Your task to perform on an android device: remove spam from my inbox in the gmail app Image 0: 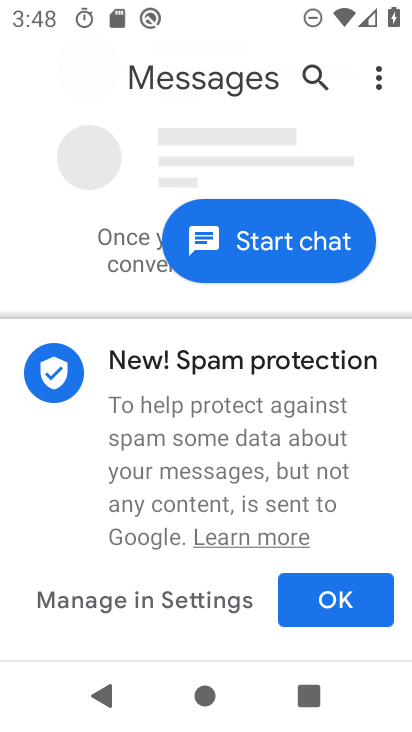
Step 0: press home button
Your task to perform on an android device: remove spam from my inbox in the gmail app Image 1: 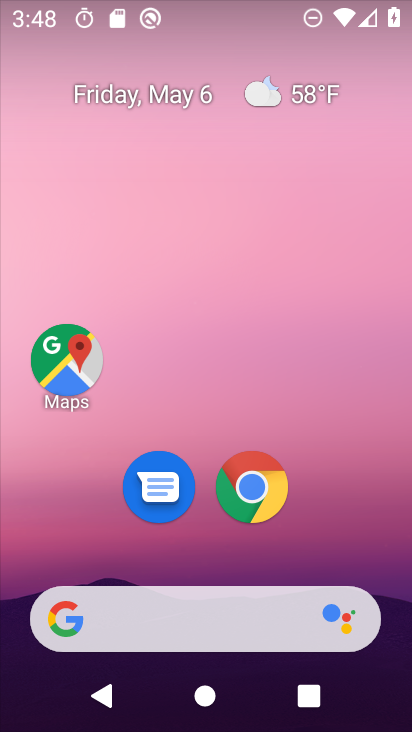
Step 1: drag from (315, 435) to (387, 43)
Your task to perform on an android device: remove spam from my inbox in the gmail app Image 2: 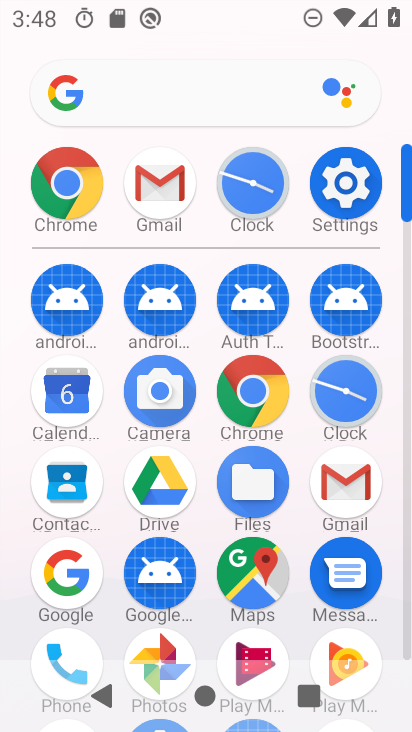
Step 2: click (354, 493)
Your task to perform on an android device: remove spam from my inbox in the gmail app Image 3: 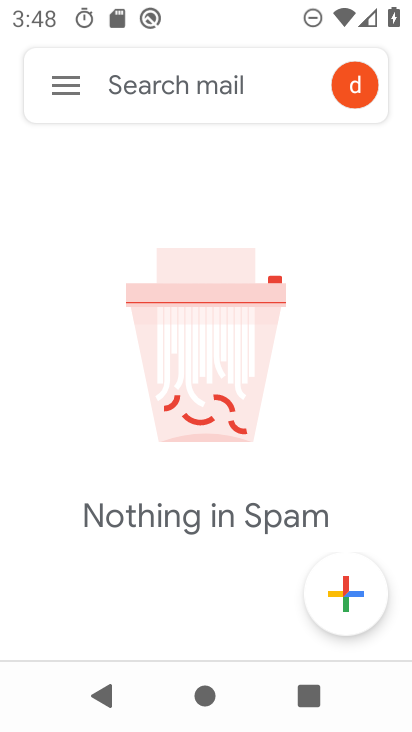
Step 3: click (64, 86)
Your task to perform on an android device: remove spam from my inbox in the gmail app Image 4: 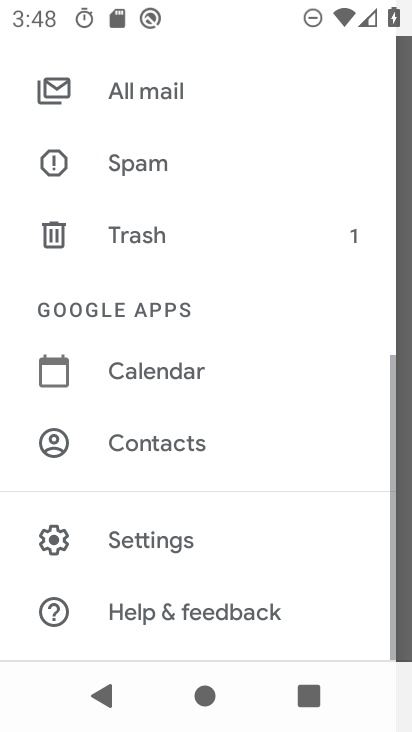
Step 4: click (165, 169)
Your task to perform on an android device: remove spam from my inbox in the gmail app Image 5: 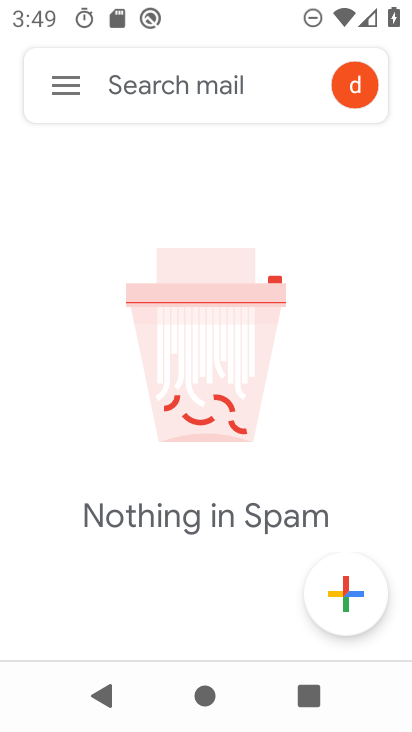
Step 5: task complete